Your task to perform on an android device: change your default location settings in chrome Image 0: 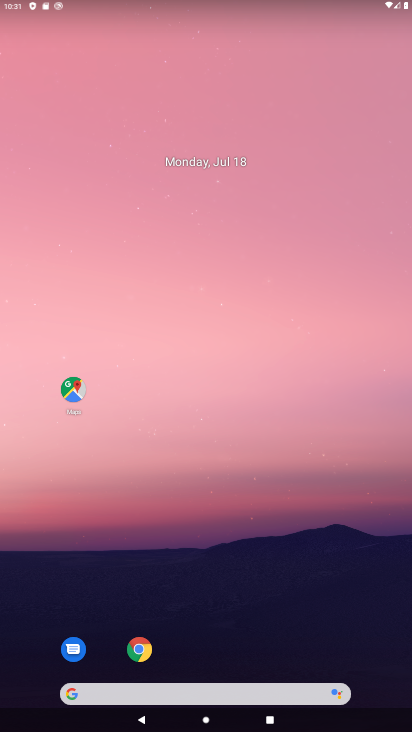
Step 0: click (139, 652)
Your task to perform on an android device: change your default location settings in chrome Image 1: 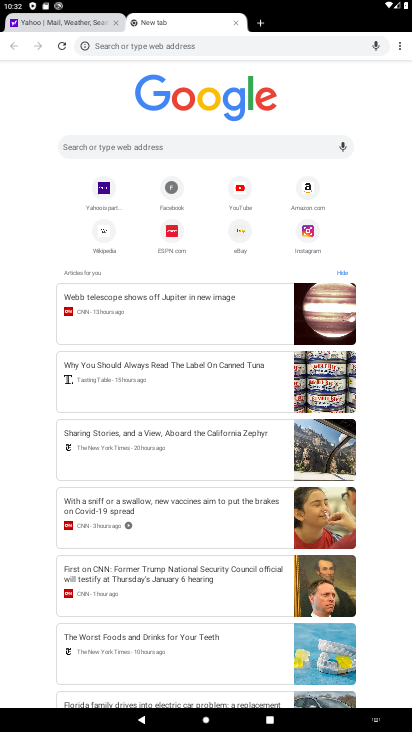
Step 1: click (402, 49)
Your task to perform on an android device: change your default location settings in chrome Image 2: 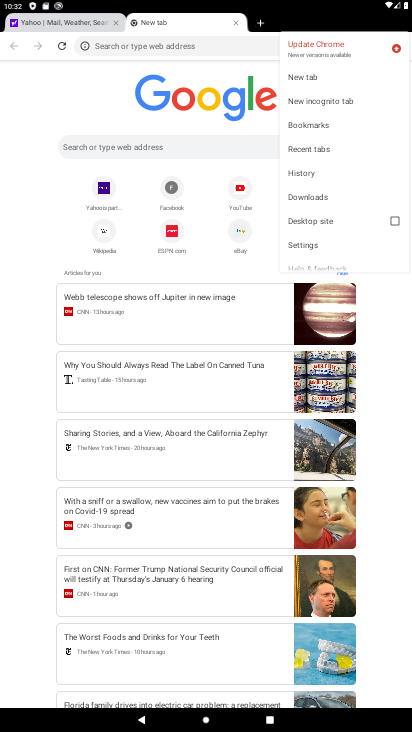
Step 2: click (309, 241)
Your task to perform on an android device: change your default location settings in chrome Image 3: 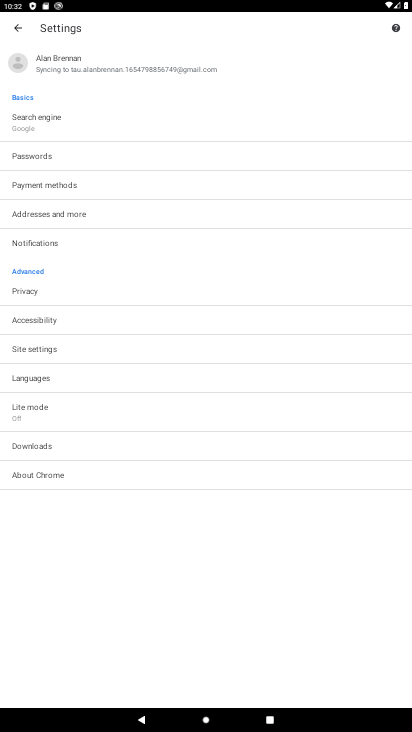
Step 3: click (39, 353)
Your task to perform on an android device: change your default location settings in chrome Image 4: 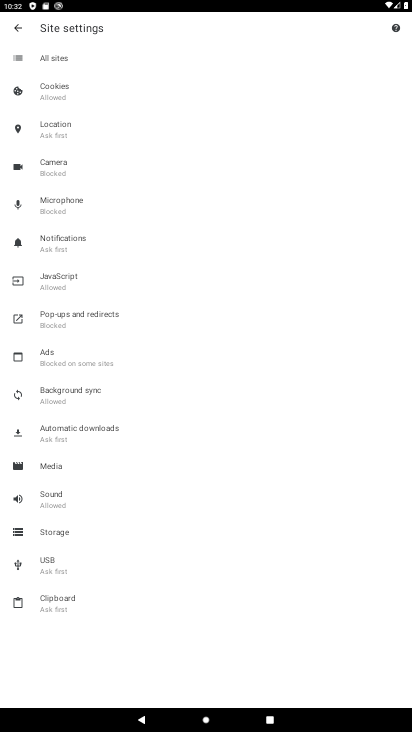
Step 4: click (54, 125)
Your task to perform on an android device: change your default location settings in chrome Image 5: 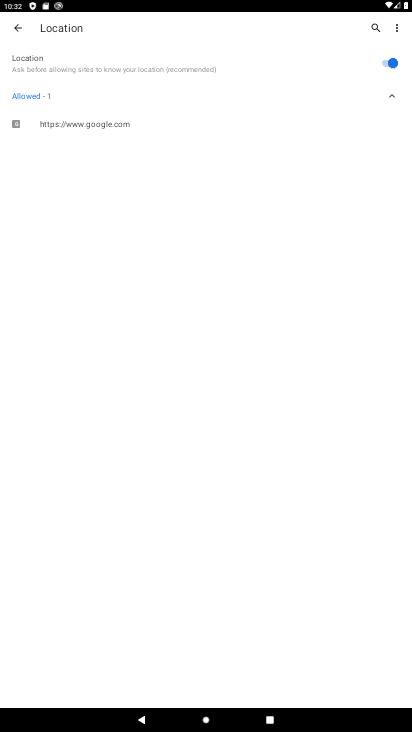
Step 5: click (398, 64)
Your task to perform on an android device: change your default location settings in chrome Image 6: 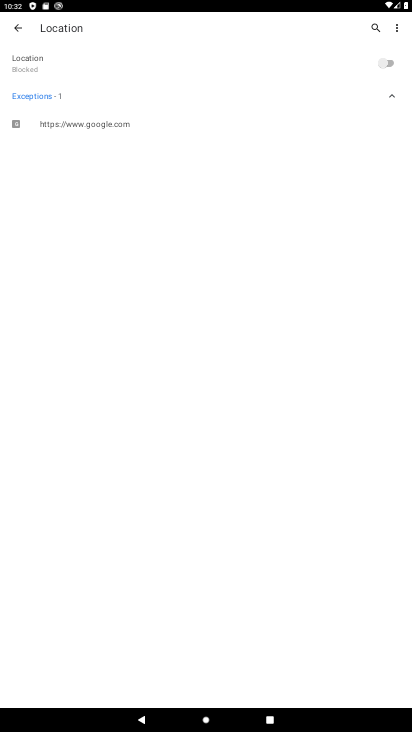
Step 6: task complete